Your task to perform on an android device: all mails in gmail Image 0: 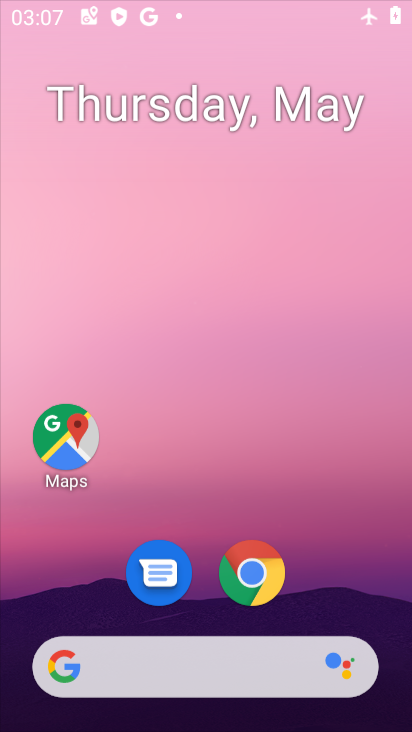
Step 0: click (333, 316)
Your task to perform on an android device: all mails in gmail Image 1: 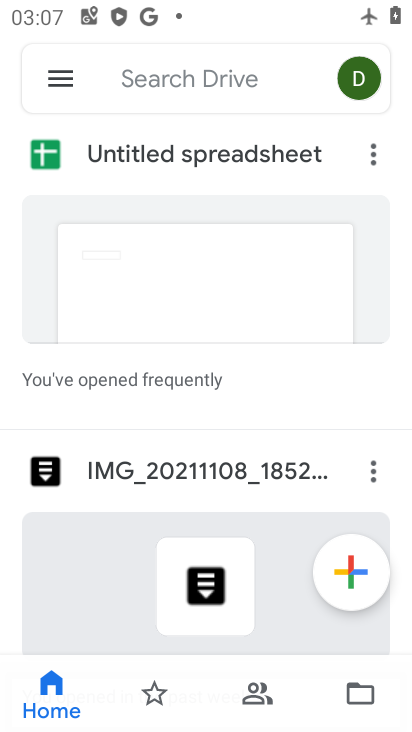
Step 1: press home button
Your task to perform on an android device: all mails in gmail Image 2: 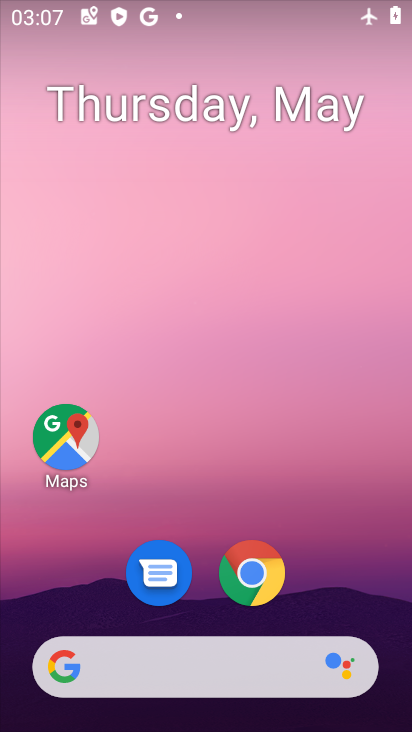
Step 2: drag from (340, 526) to (309, 240)
Your task to perform on an android device: all mails in gmail Image 3: 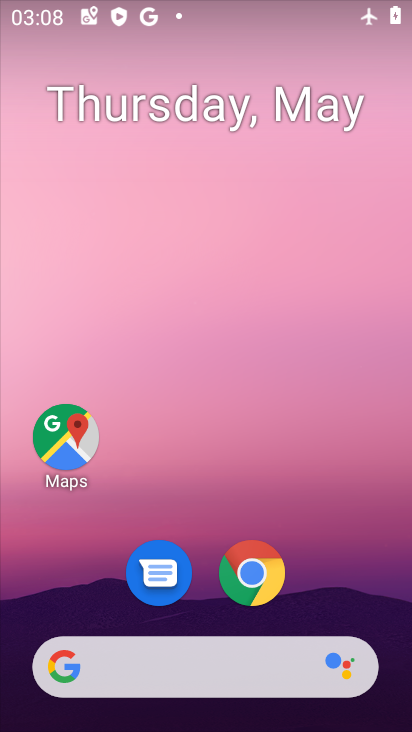
Step 3: drag from (325, 584) to (278, 237)
Your task to perform on an android device: all mails in gmail Image 4: 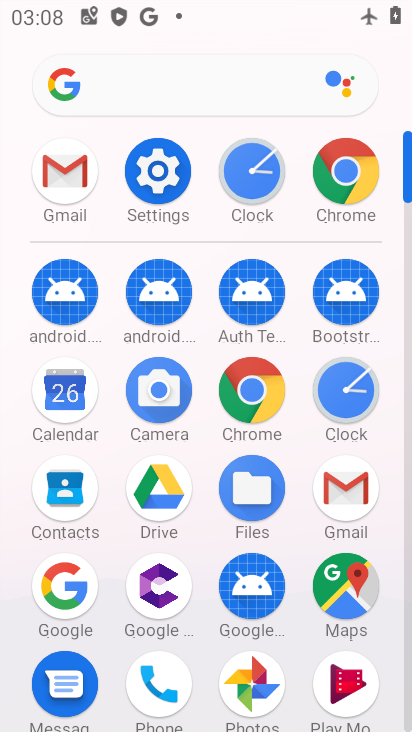
Step 4: click (48, 162)
Your task to perform on an android device: all mails in gmail Image 5: 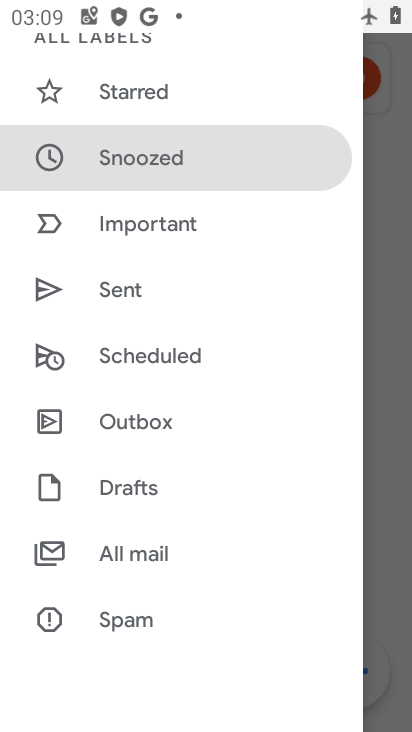
Step 5: click (145, 558)
Your task to perform on an android device: all mails in gmail Image 6: 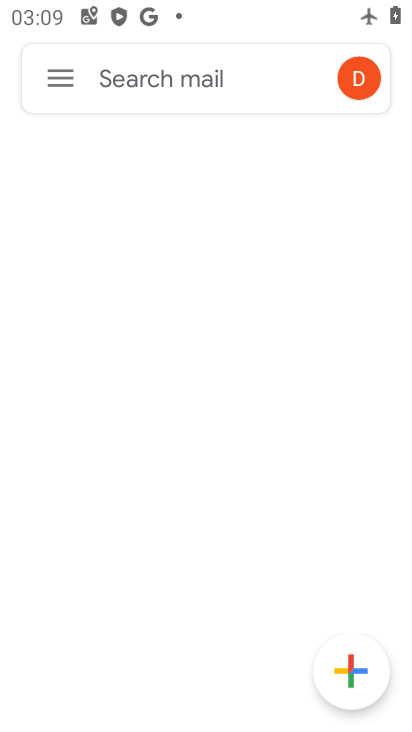
Step 6: task complete